Your task to perform on an android device: allow notifications from all sites in the chrome app Image 0: 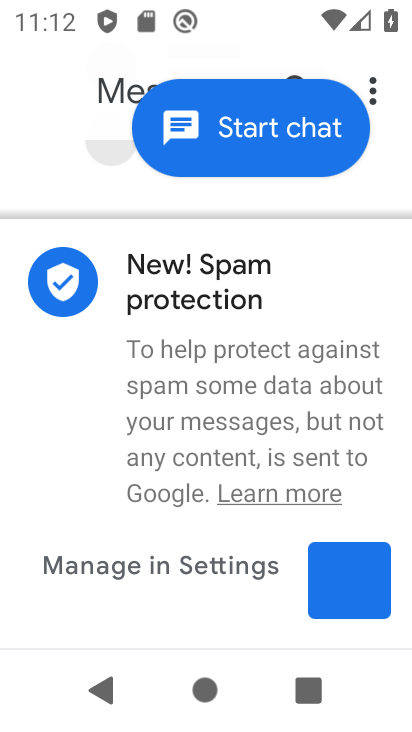
Step 0: press home button
Your task to perform on an android device: allow notifications from all sites in the chrome app Image 1: 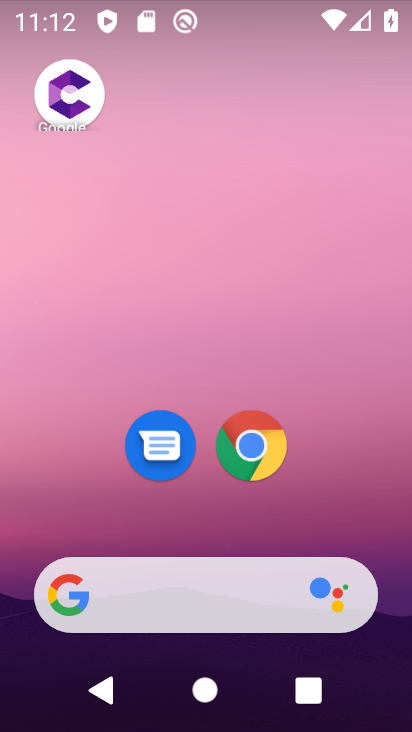
Step 1: click (242, 442)
Your task to perform on an android device: allow notifications from all sites in the chrome app Image 2: 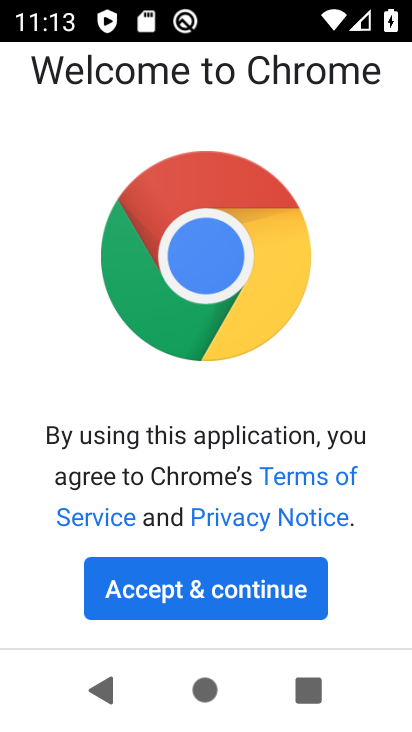
Step 2: click (229, 582)
Your task to perform on an android device: allow notifications from all sites in the chrome app Image 3: 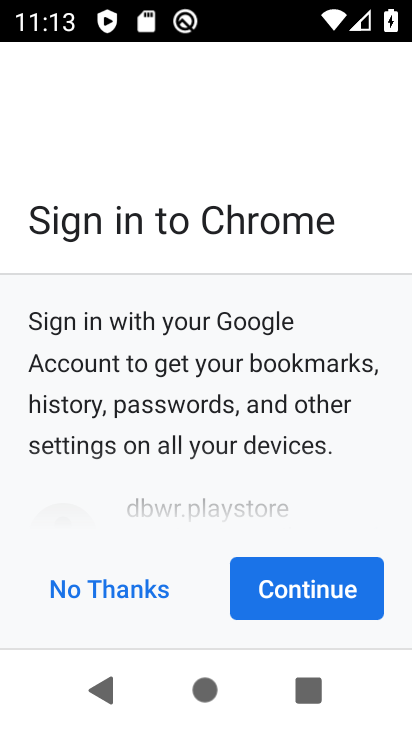
Step 3: click (285, 601)
Your task to perform on an android device: allow notifications from all sites in the chrome app Image 4: 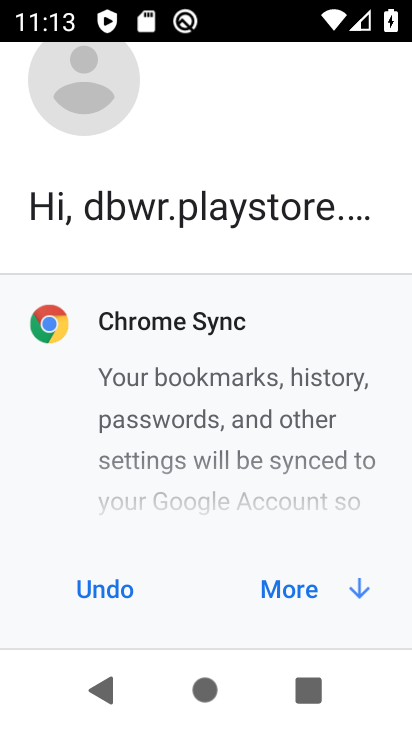
Step 4: click (285, 601)
Your task to perform on an android device: allow notifications from all sites in the chrome app Image 5: 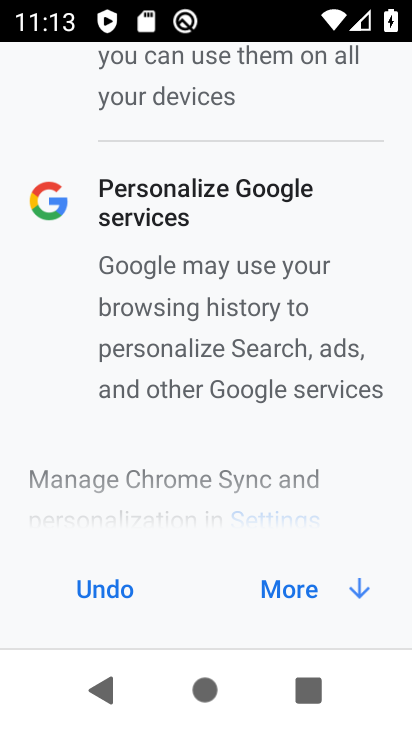
Step 5: click (285, 601)
Your task to perform on an android device: allow notifications from all sites in the chrome app Image 6: 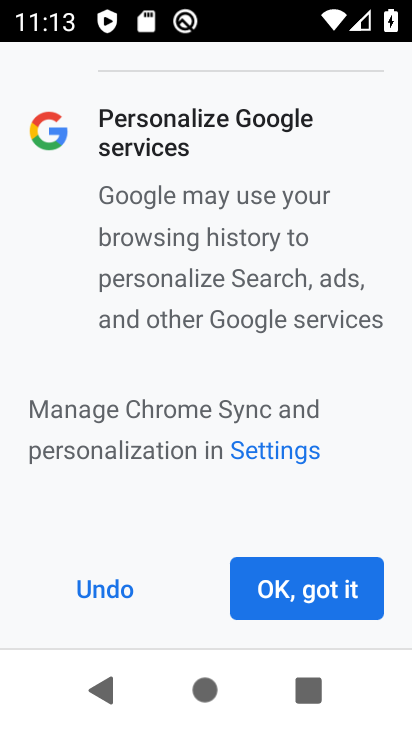
Step 6: click (296, 593)
Your task to perform on an android device: allow notifications from all sites in the chrome app Image 7: 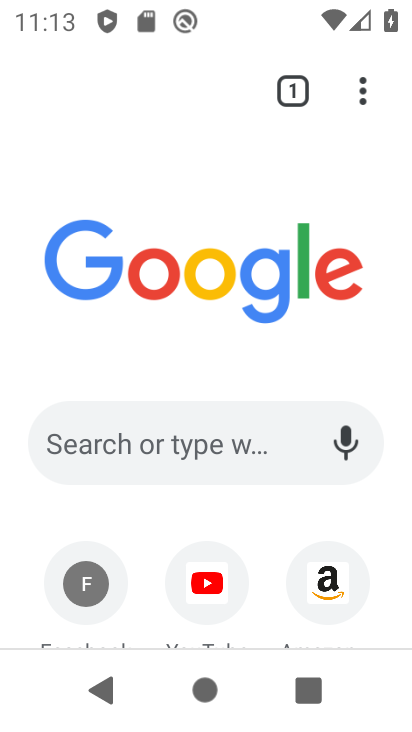
Step 7: drag from (360, 89) to (142, 473)
Your task to perform on an android device: allow notifications from all sites in the chrome app Image 8: 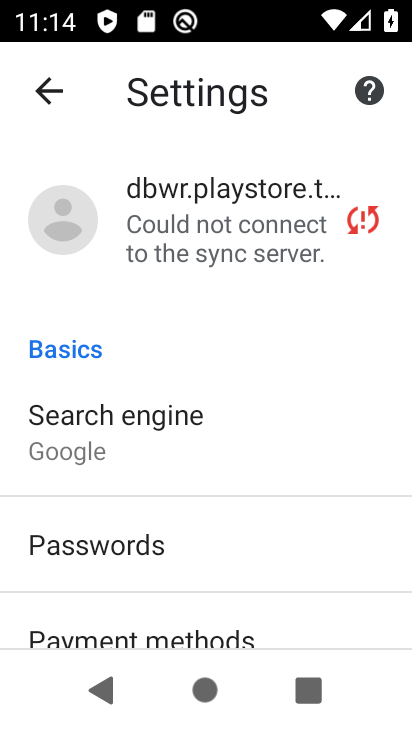
Step 8: drag from (170, 555) to (185, 16)
Your task to perform on an android device: allow notifications from all sites in the chrome app Image 9: 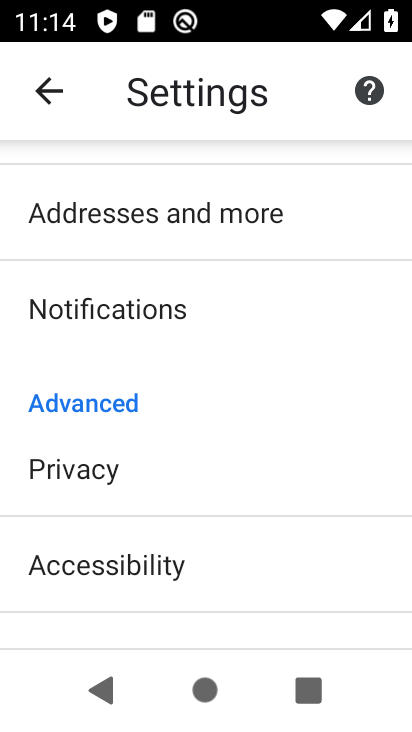
Step 9: drag from (156, 546) to (133, 257)
Your task to perform on an android device: allow notifications from all sites in the chrome app Image 10: 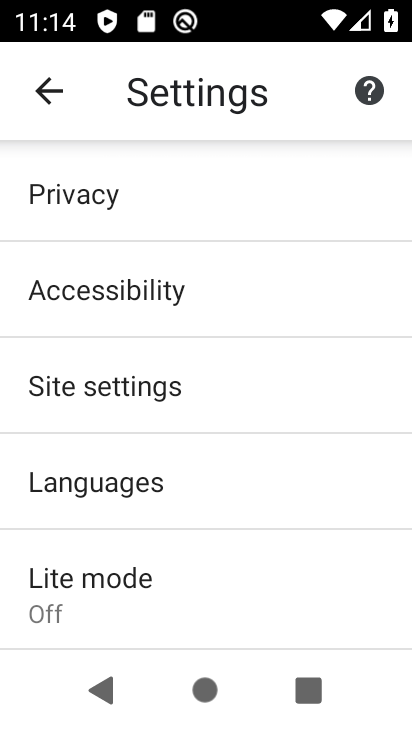
Step 10: click (77, 381)
Your task to perform on an android device: allow notifications from all sites in the chrome app Image 11: 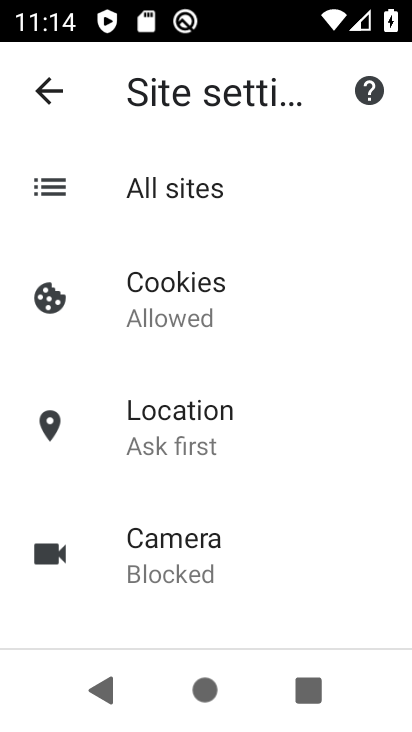
Step 11: drag from (158, 491) to (133, 50)
Your task to perform on an android device: allow notifications from all sites in the chrome app Image 12: 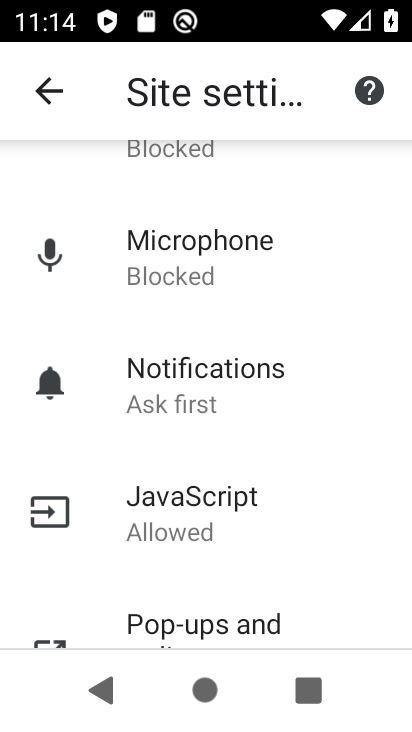
Step 12: click (119, 394)
Your task to perform on an android device: allow notifications from all sites in the chrome app Image 13: 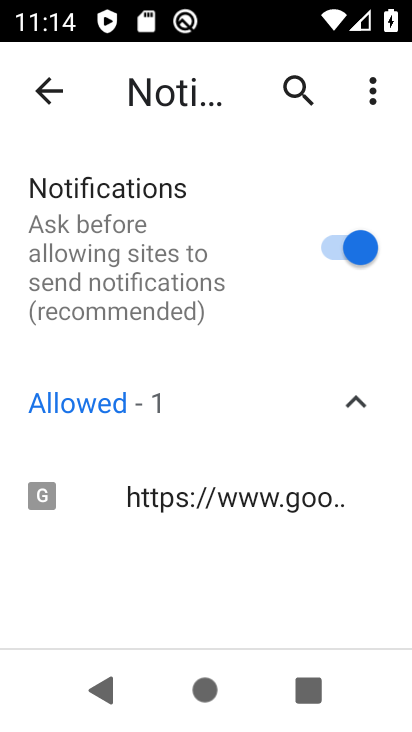
Step 13: task complete